Your task to perform on an android device: show emergency info Image 0: 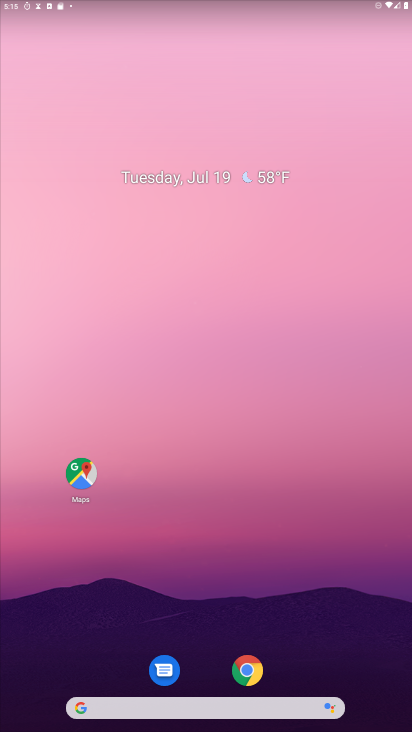
Step 0: drag from (288, 649) to (385, 1)
Your task to perform on an android device: show emergency info Image 1: 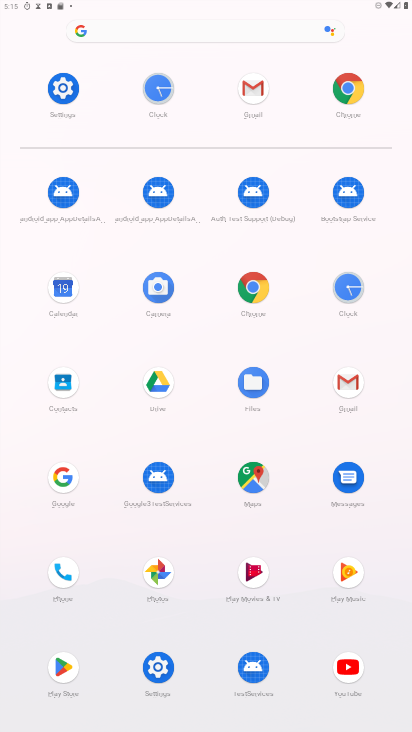
Step 1: press home button
Your task to perform on an android device: show emergency info Image 2: 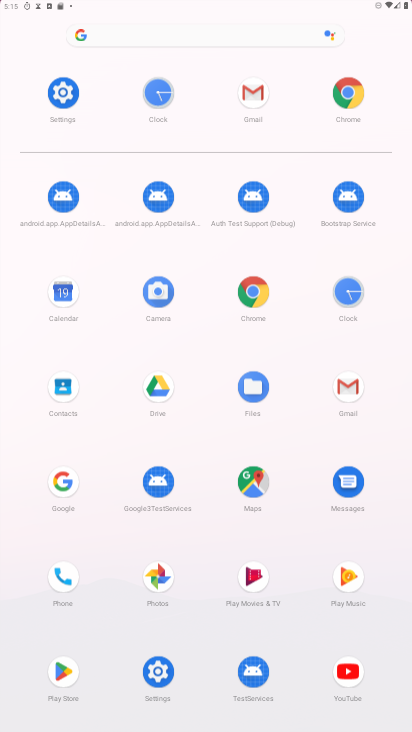
Step 2: drag from (244, 518) to (336, 0)
Your task to perform on an android device: show emergency info Image 3: 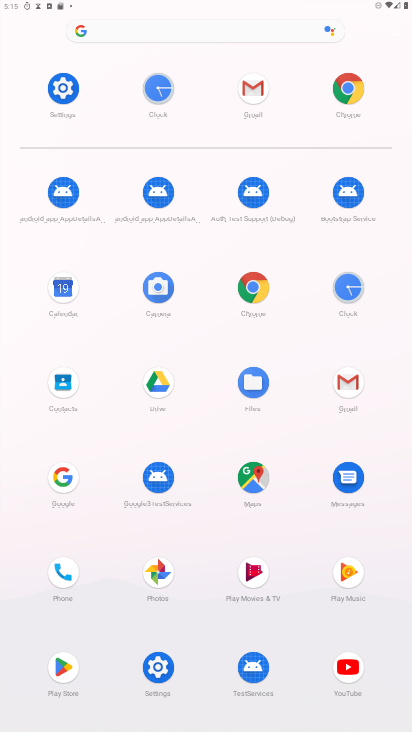
Step 3: click (61, 82)
Your task to perform on an android device: show emergency info Image 4: 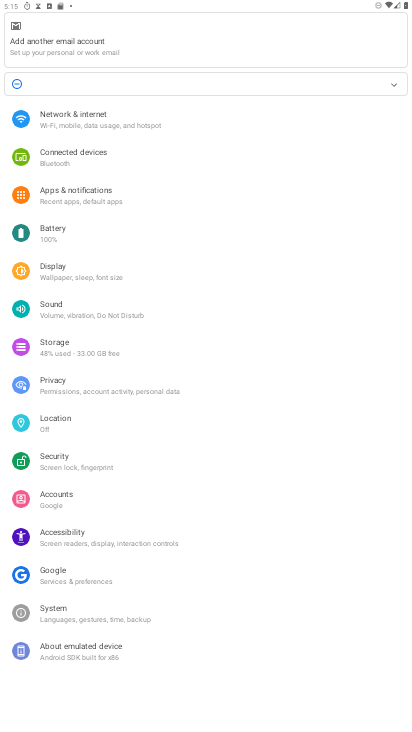
Step 4: click (61, 92)
Your task to perform on an android device: show emergency info Image 5: 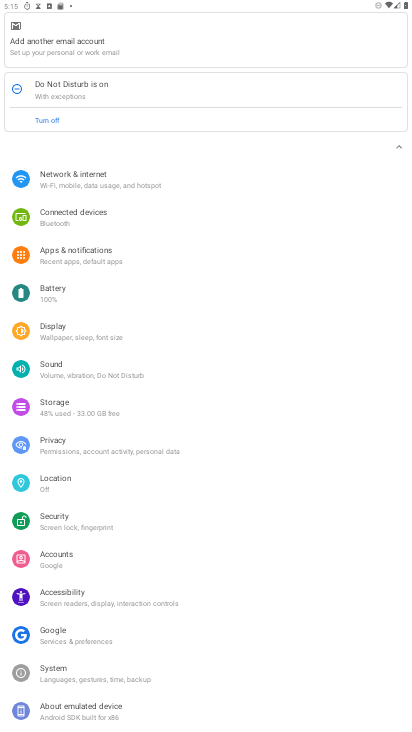
Step 5: click (120, 659)
Your task to perform on an android device: show emergency info Image 6: 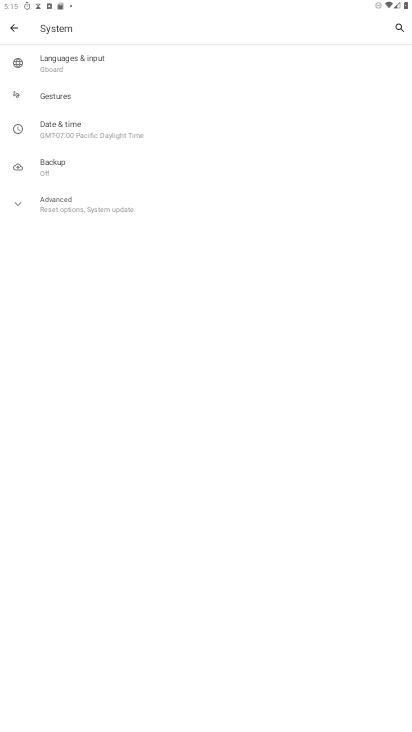
Step 6: click (115, 711)
Your task to perform on an android device: show emergency info Image 7: 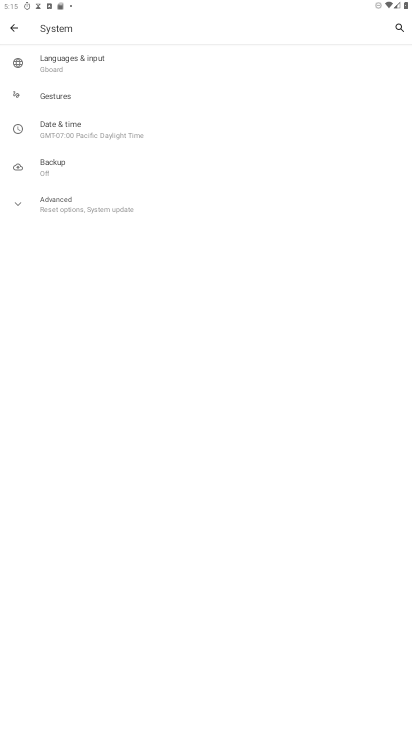
Step 7: press back button
Your task to perform on an android device: show emergency info Image 8: 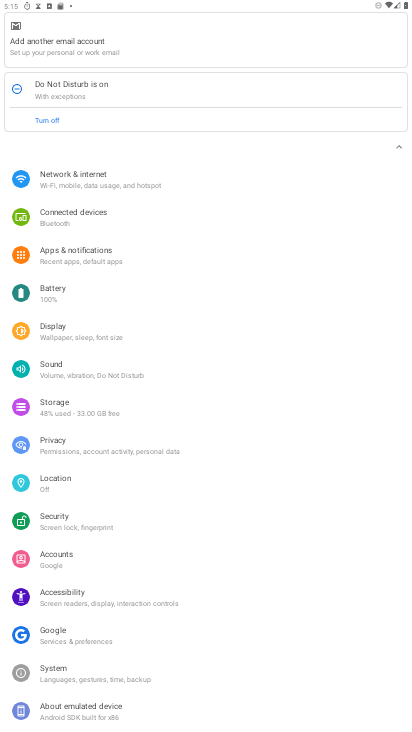
Step 8: click (113, 712)
Your task to perform on an android device: show emergency info Image 9: 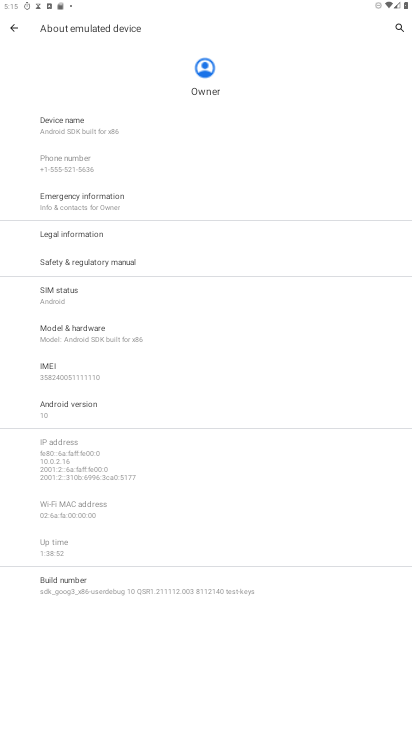
Step 9: click (139, 201)
Your task to perform on an android device: show emergency info Image 10: 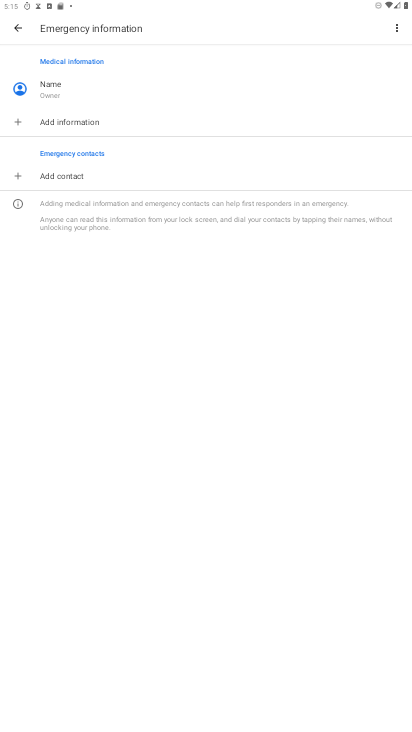
Step 10: task complete